Your task to perform on an android device: Open Chrome and go to settings Image 0: 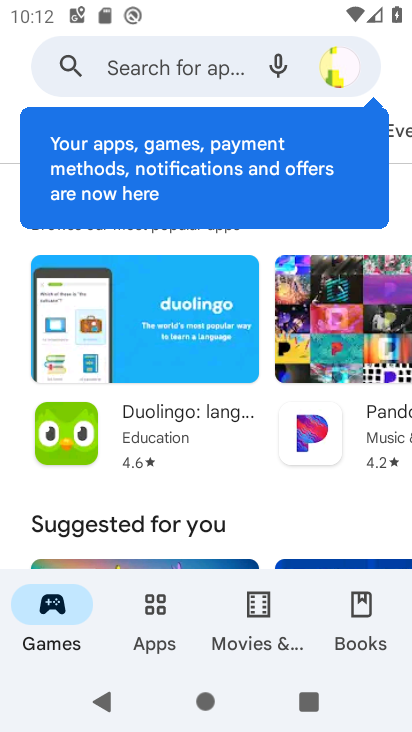
Step 0: press home button
Your task to perform on an android device: Open Chrome and go to settings Image 1: 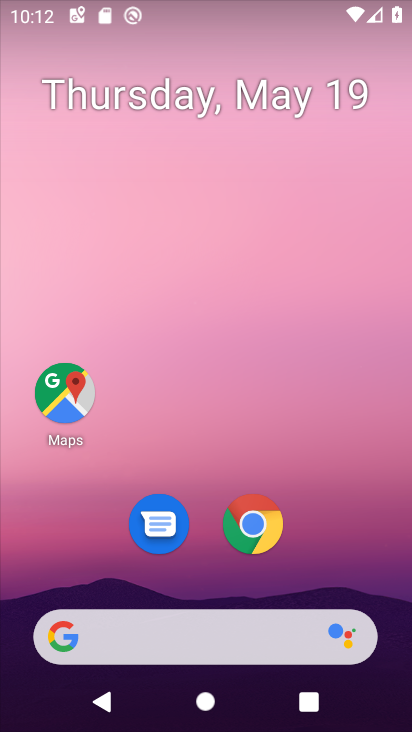
Step 1: click (257, 523)
Your task to perform on an android device: Open Chrome and go to settings Image 2: 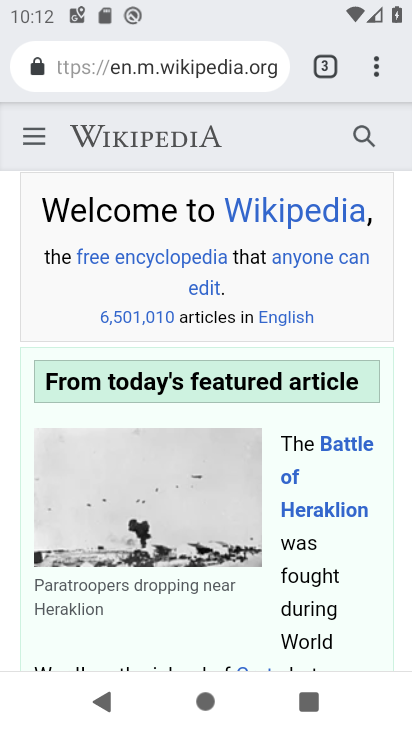
Step 2: click (370, 65)
Your task to perform on an android device: Open Chrome and go to settings Image 3: 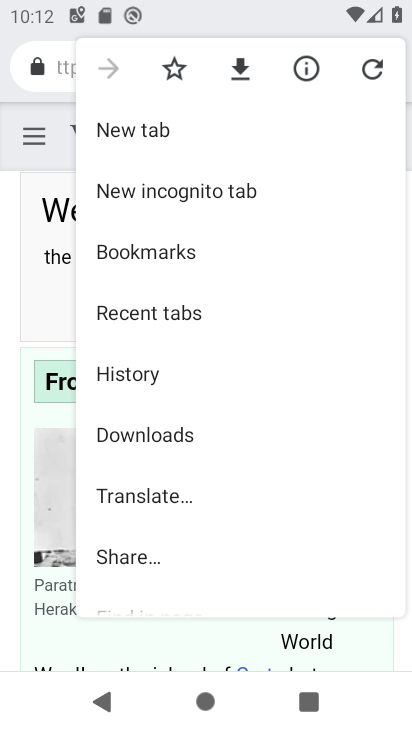
Step 3: drag from (234, 392) to (258, 128)
Your task to perform on an android device: Open Chrome and go to settings Image 4: 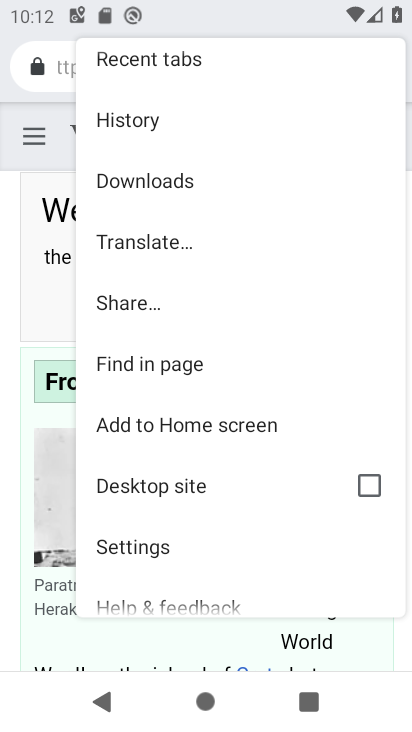
Step 4: click (174, 543)
Your task to perform on an android device: Open Chrome and go to settings Image 5: 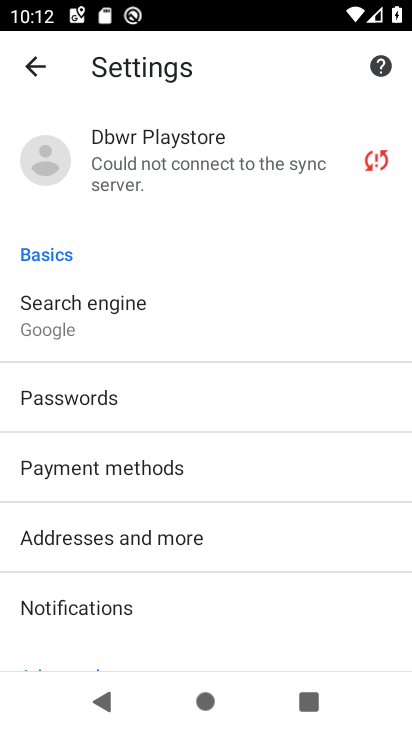
Step 5: task complete